Your task to perform on an android device: What is the recent news? Image 0: 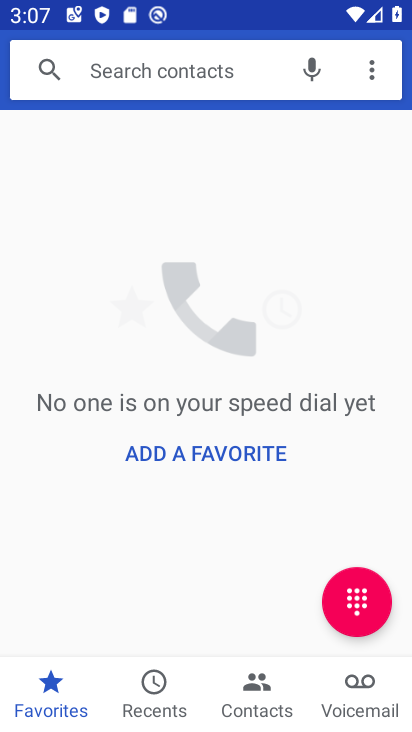
Step 0: drag from (238, 430) to (247, 118)
Your task to perform on an android device: What is the recent news? Image 1: 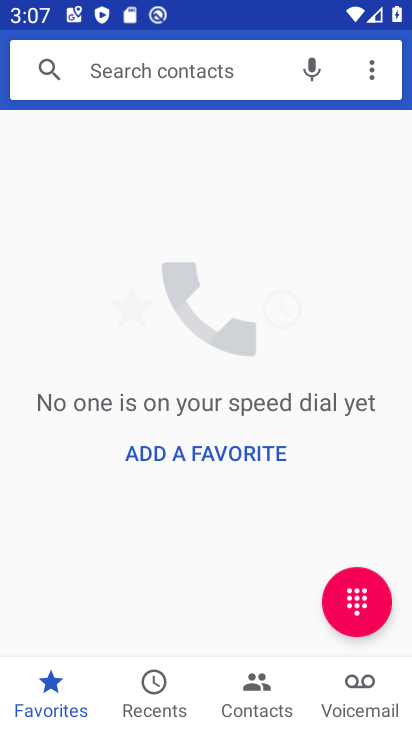
Step 1: press home button
Your task to perform on an android device: What is the recent news? Image 2: 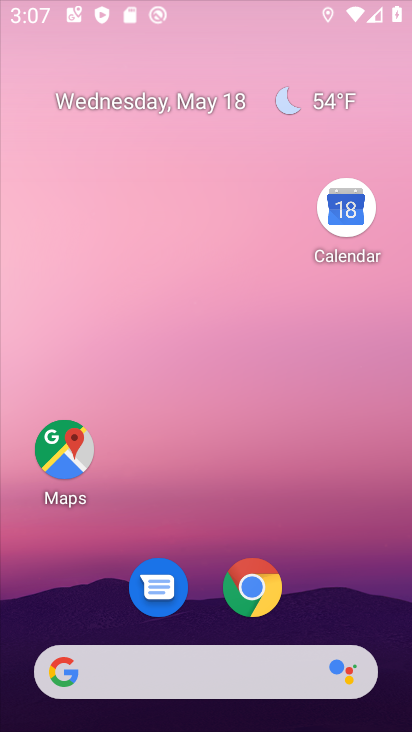
Step 2: drag from (219, 521) to (233, 69)
Your task to perform on an android device: What is the recent news? Image 3: 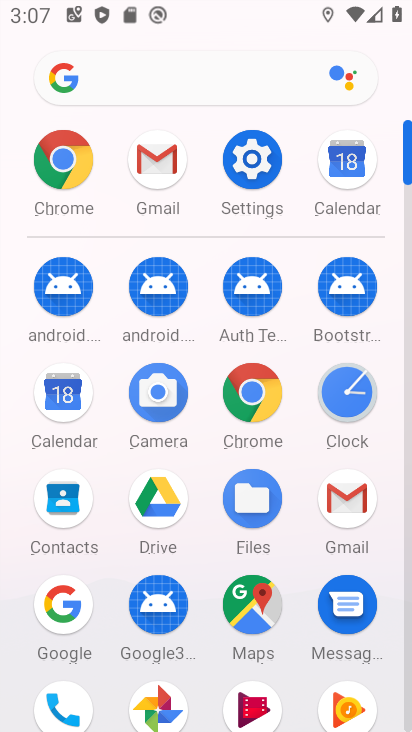
Step 3: click (207, 68)
Your task to perform on an android device: What is the recent news? Image 4: 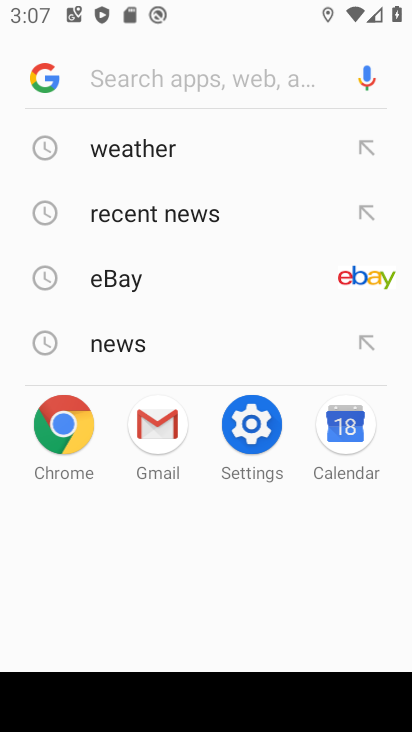
Step 4: click (192, 207)
Your task to perform on an android device: What is the recent news? Image 5: 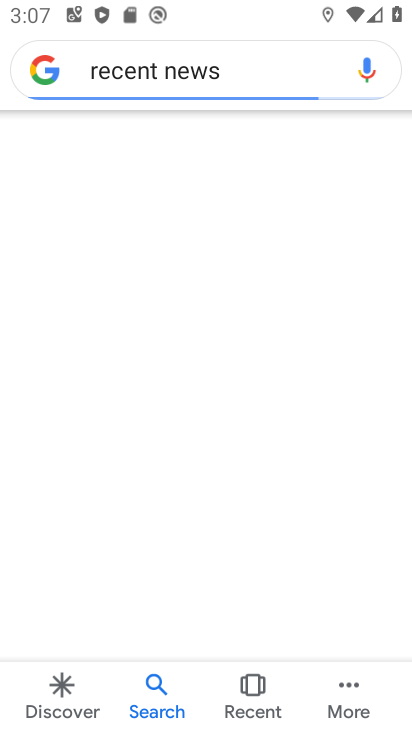
Step 5: task complete